Your task to perform on an android device: Open sound settings Image 0: 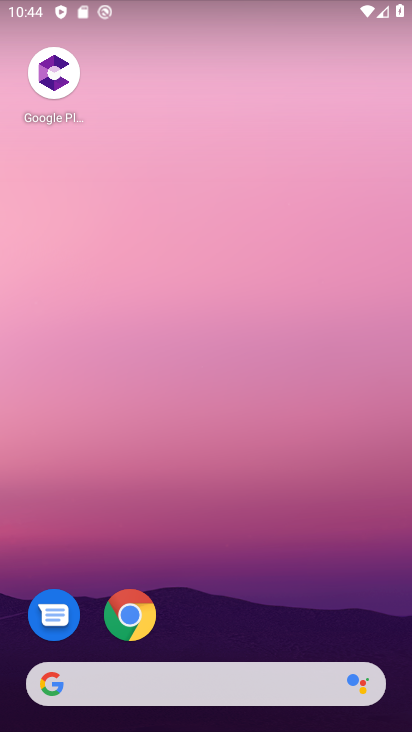
Step 0: drag from (245, 480) to (228, 0)
Your task to perform on an android device: Open sound settings Image 1: 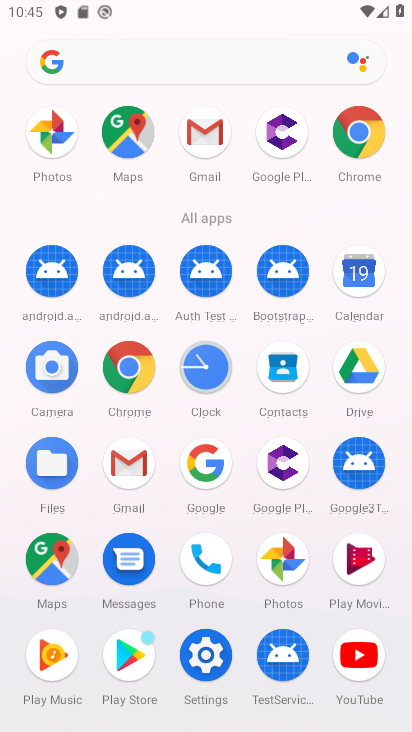
Step 1: click (209, 665)
Your task to perform on an android device: Open sound settings Image 2: 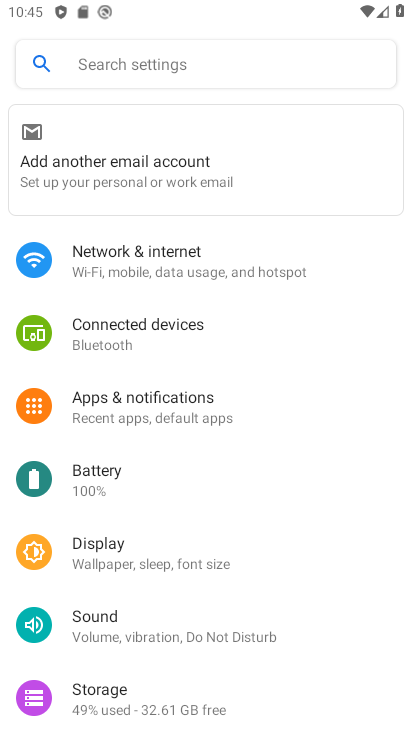
Step 2: click (84, 624)
Your task to perform on an android device: Open sound settings Image 3: 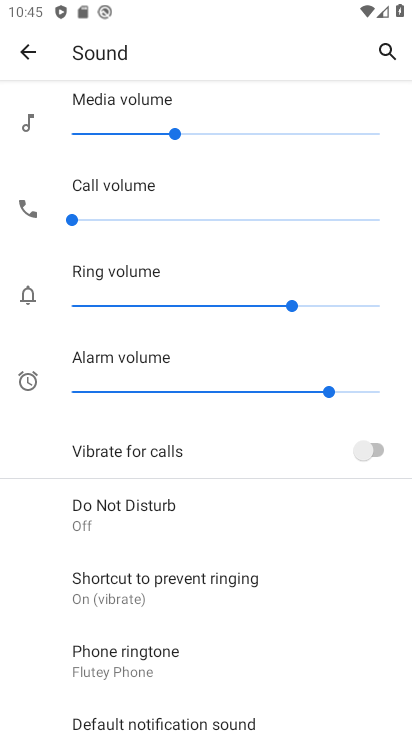
Step 3: task complete